Your task to perform on an android device: What's on my calendar tomorrow? Image 0: 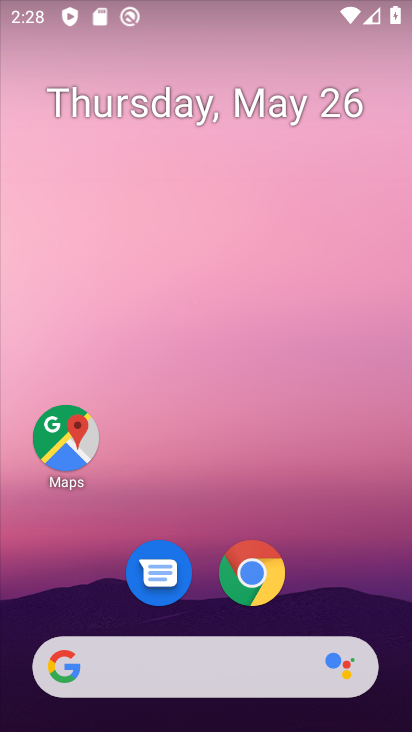
Step 0: drag from (326, 572) to (284, 229)
Your task to perform on an android device: What's on my calendar tomorrow? Image 1: 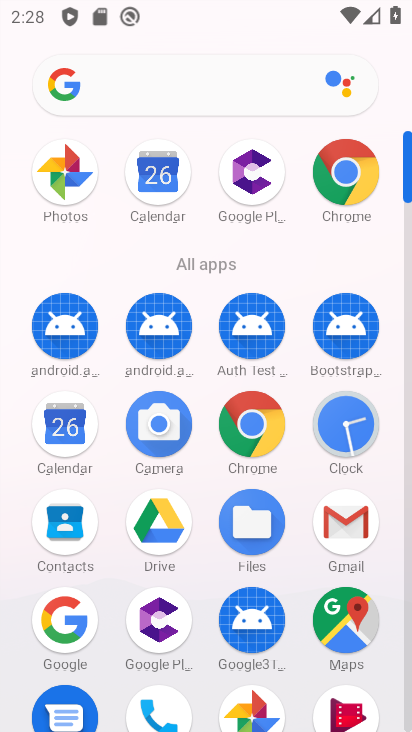
Step 1: drag from (197, 479) to (218, 226)
Your task to perform on an android device: What's on my calendar tomorrow? Image 2: 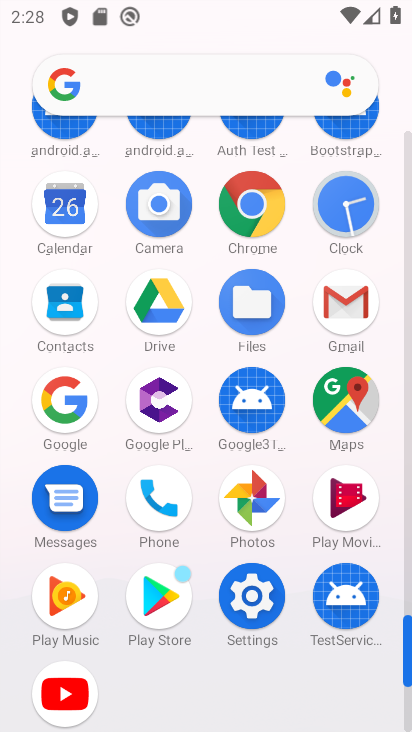
Step 2: click (64, 208)
Your task to perform on an android device: What's on my calendar tomorrow? Image 3: 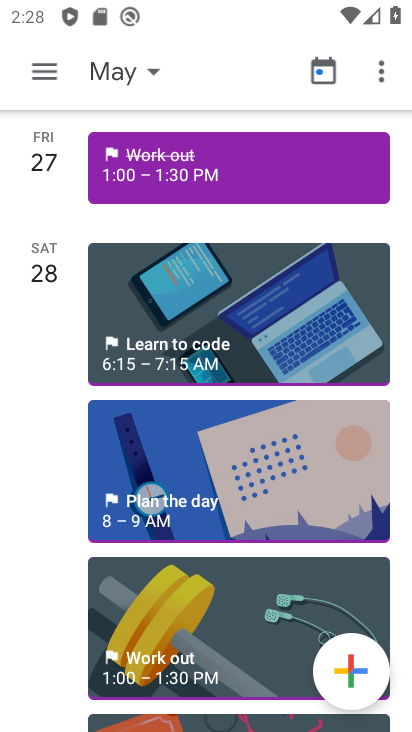
Step 3: click (327, 70)
Your task to perform on an android device: What's on my calendar tomorrow? Image 4: 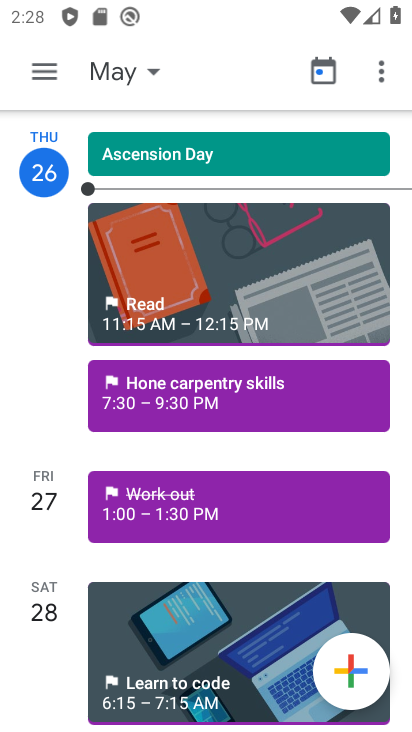
Step 4: click (145, 68)
Your task to perform on an android device: What's on my calendar tomorrow? Image 5: 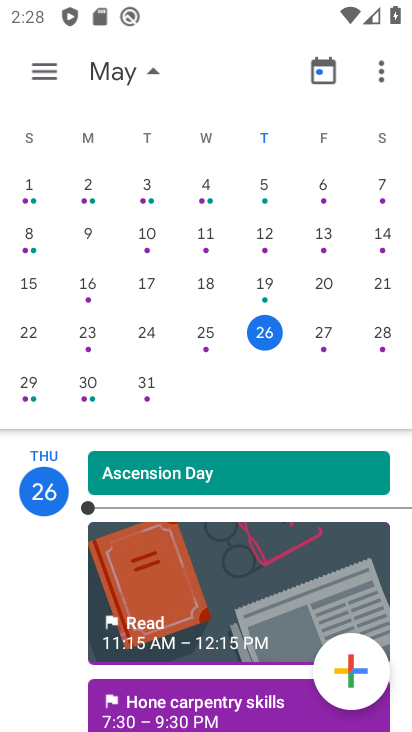
Step 5: click (326, 335)
Your task to perform on an android device: What's on my calendar tomorrow? Image 6: 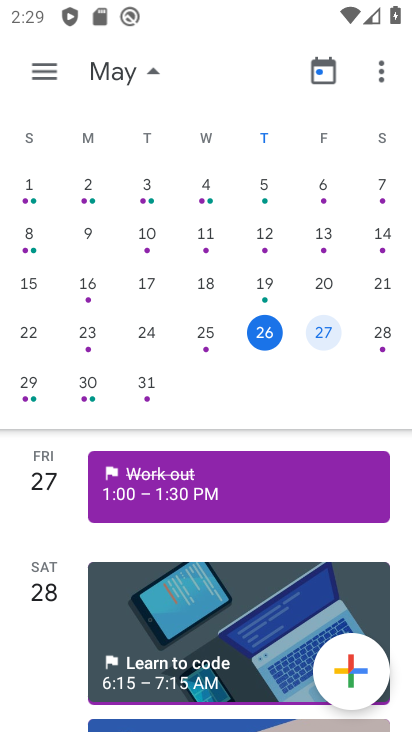
Step 6: click (42, 74)
Your task to perform on an android device: What's on my calendar tomorrow? Image 7: 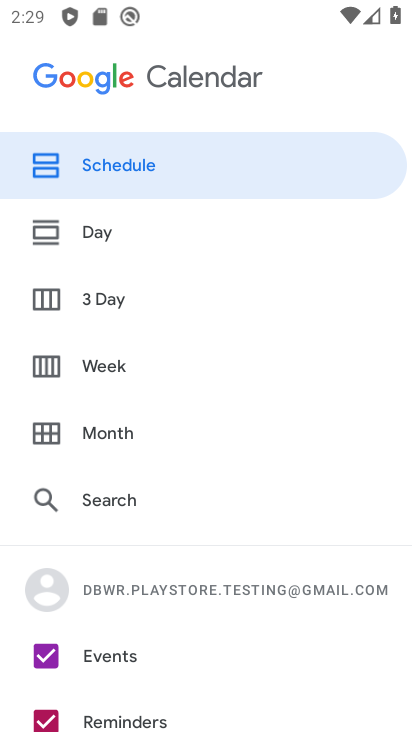
Step 7: click (138, 161)
Your task to perform on an android device: What's on my calendar tomorrow? Image 8: 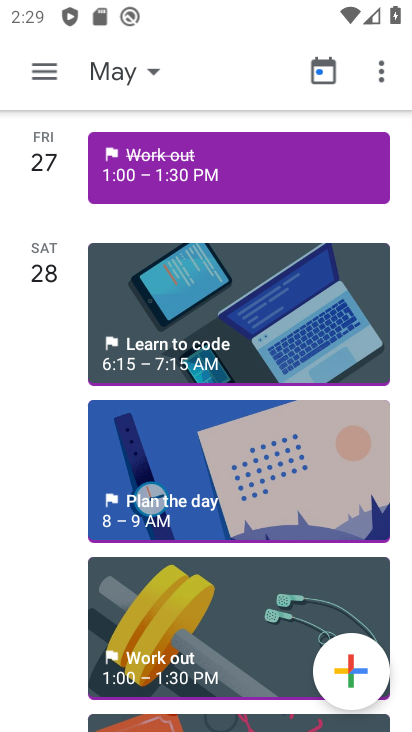
Step 8: task complete